Your task to perform on an android device: open app "Grab" Image 0: 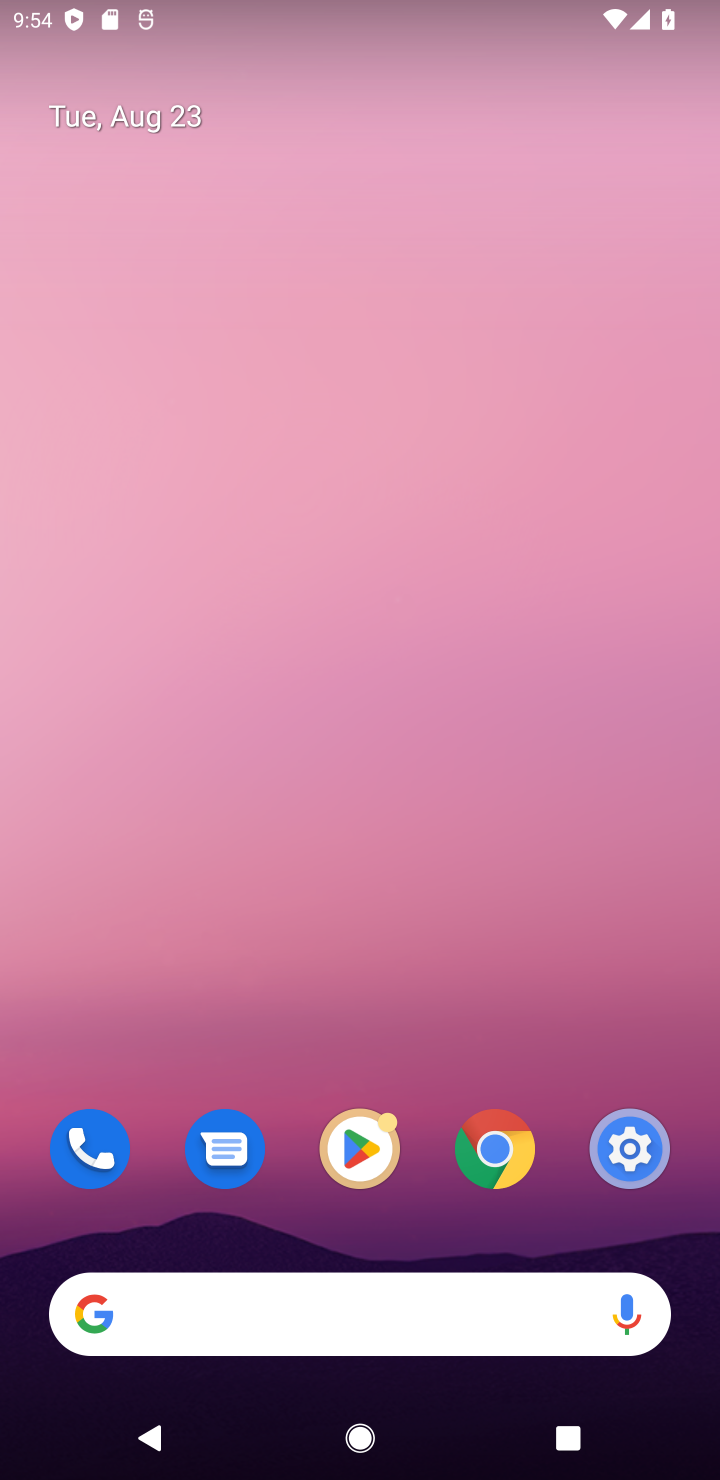
Step 0: click (386, 1144)
Your task to perform on an android device: open app "Grab" Image 1: 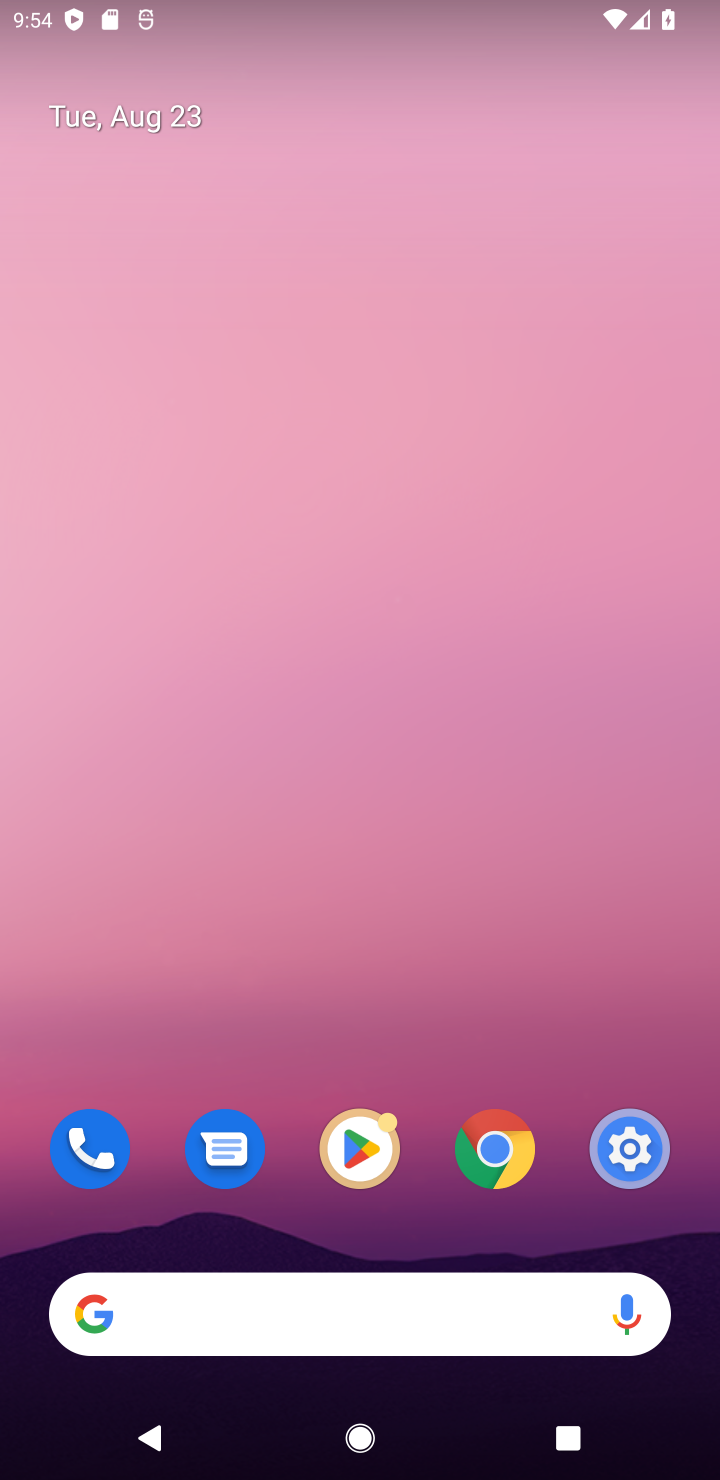
Step 1: click (364, 1144)
Your task to perform on an android device: open app "Grab" Image 2: 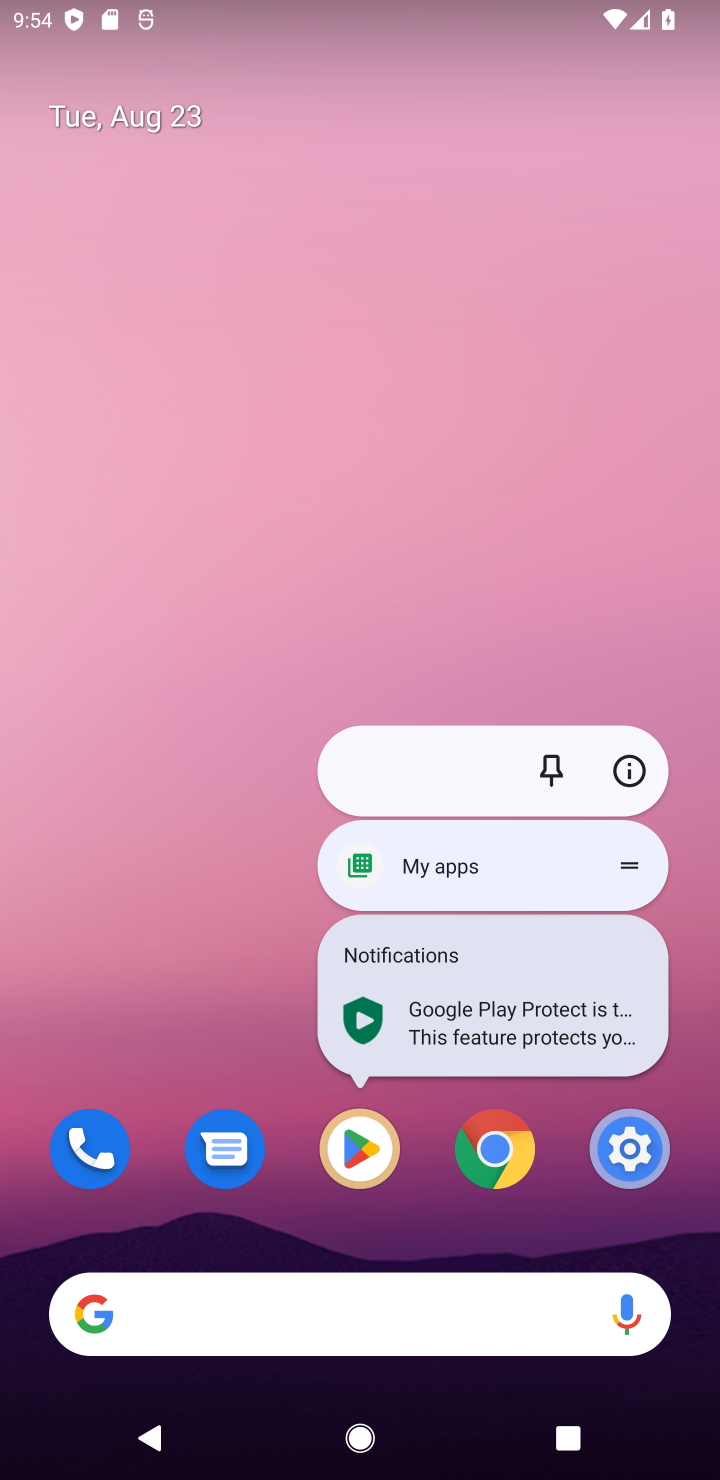
Step 2: click (364, 1144)
Your task to perform on an android device: open app "Grab" Image 3: 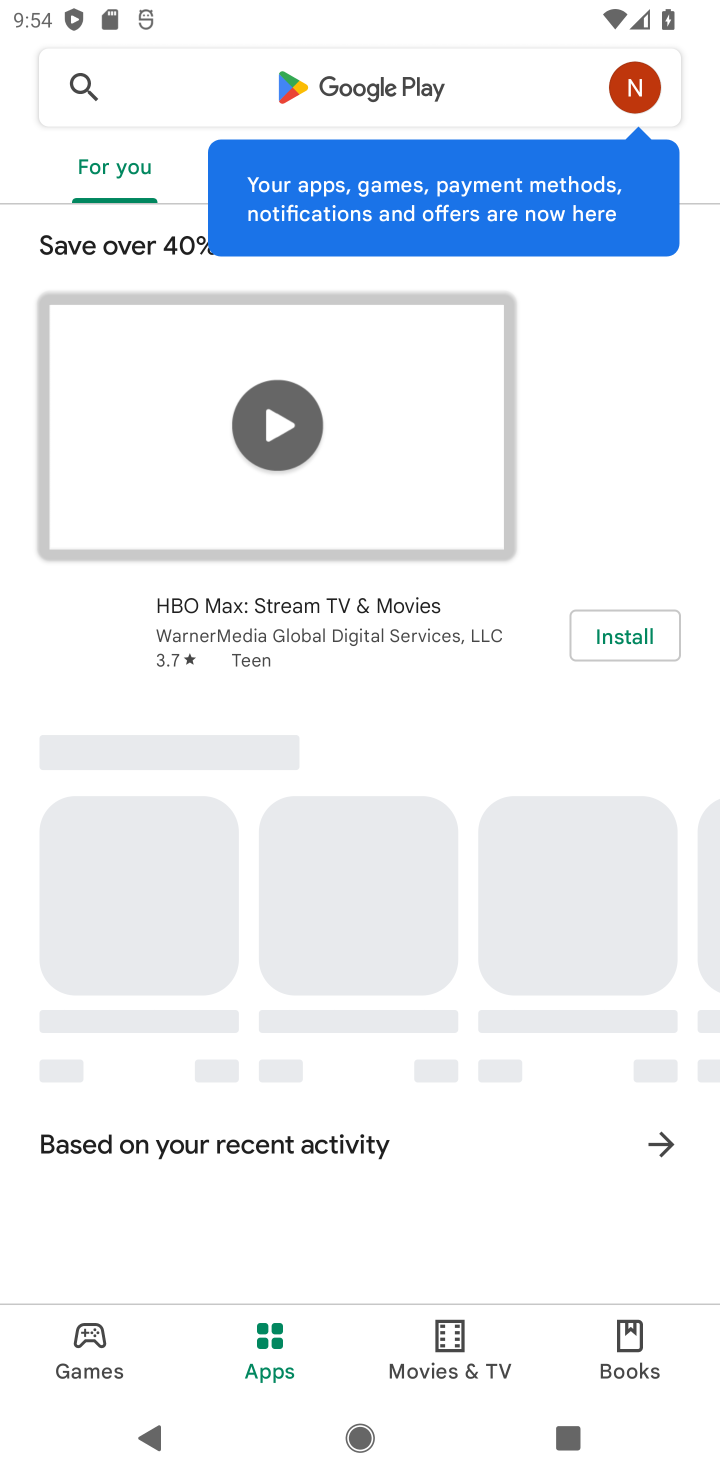
Step 3: click (404, 96)
Your task to perform on an android device: open app "Grab" Image 4: 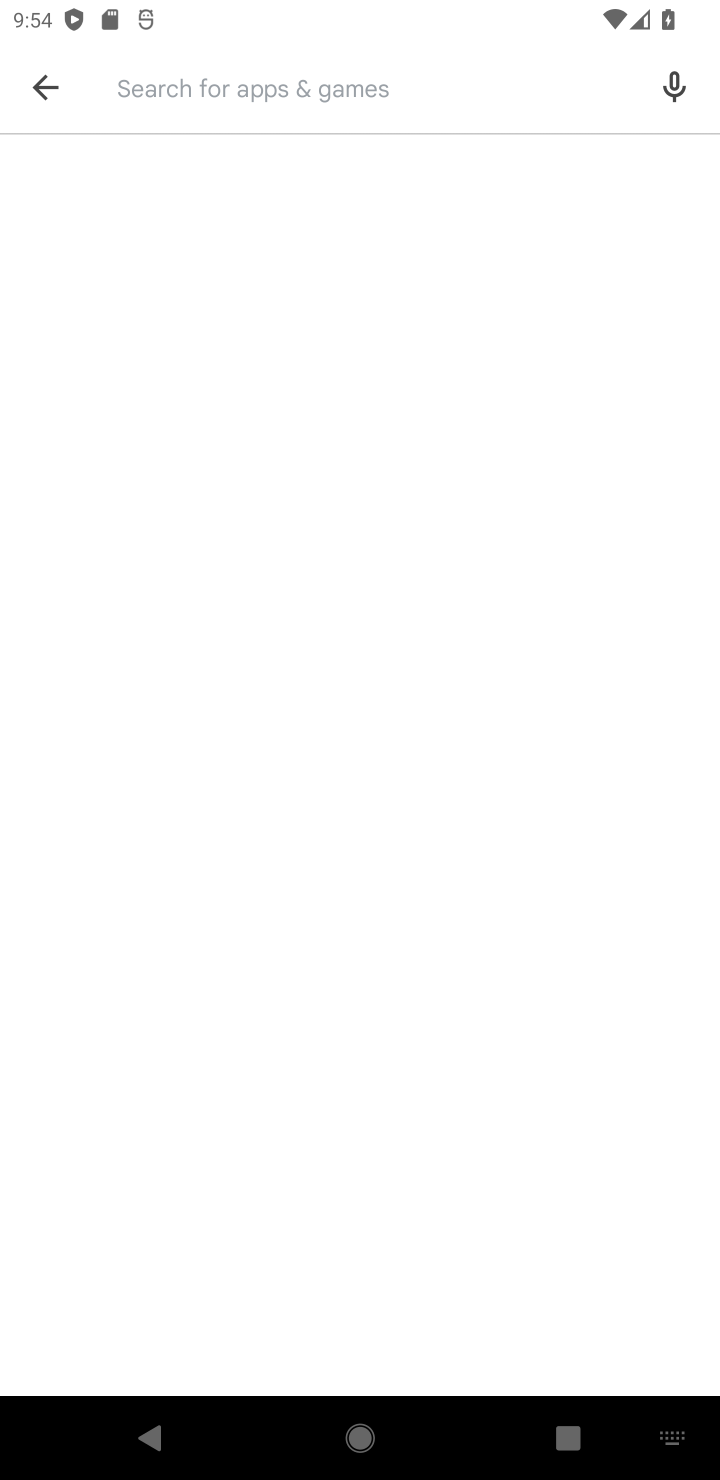
Step 4: type "grab"
Your task to perform on an android device: open app "Grab" Image 5: 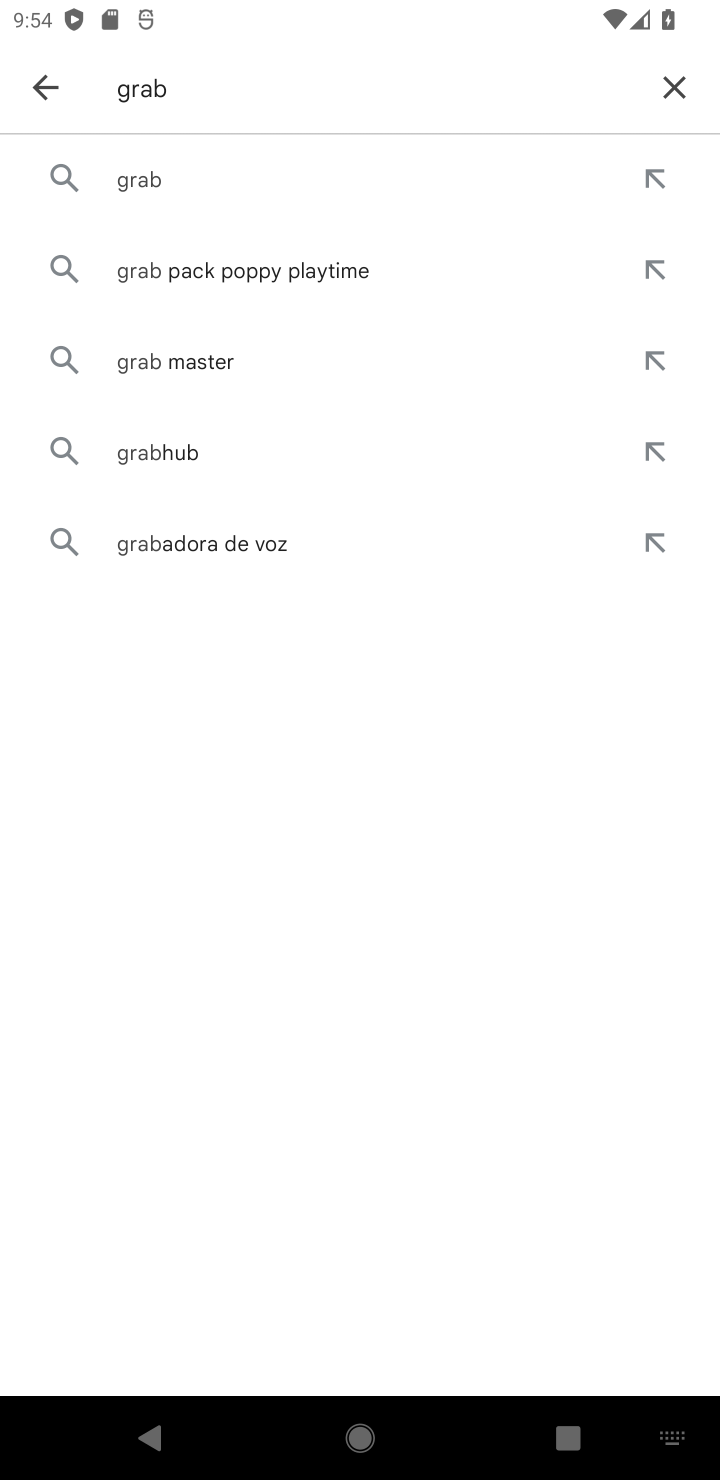
Step 5: click (303, 200)
Your task to perform on an android device: open app "Grab" Image 6: 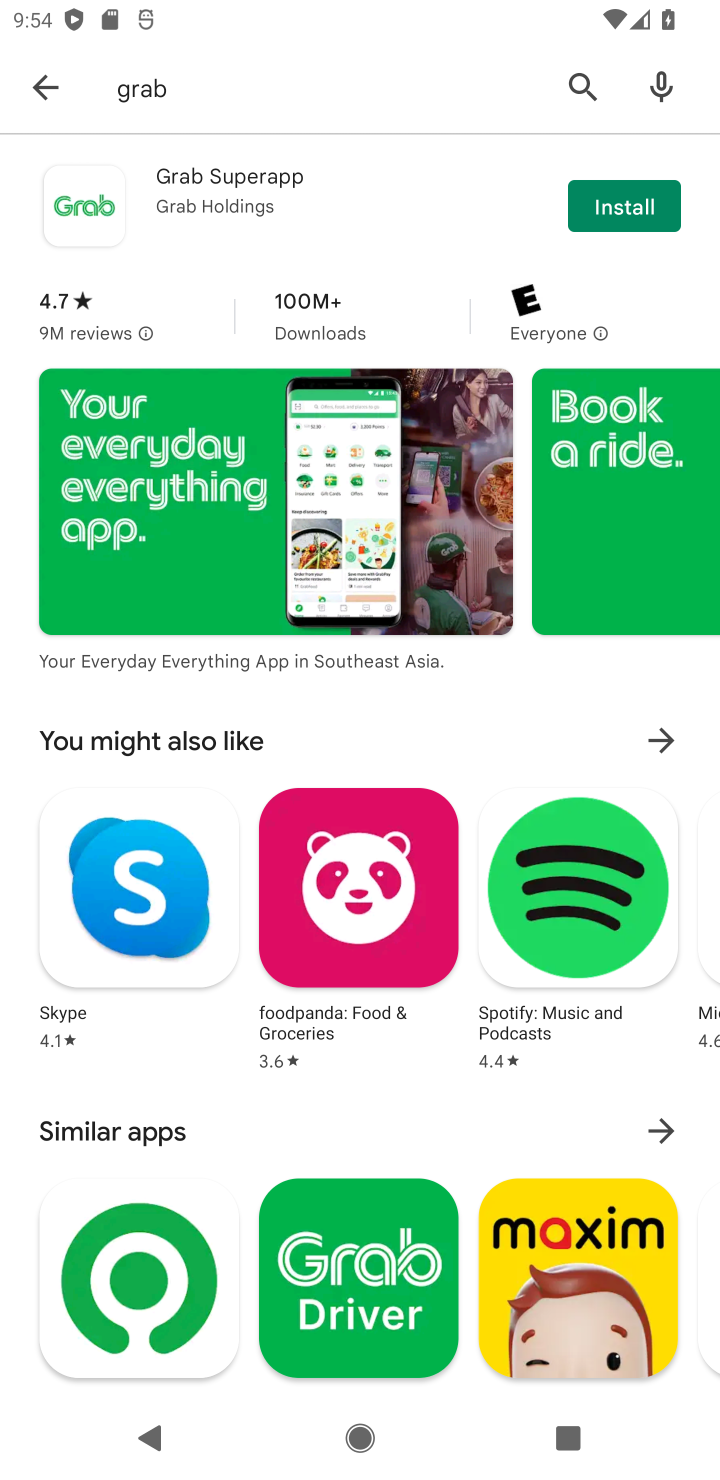
Step 6: click (573, 195)
Your task to perform on an android device: open app "Grab" Image 7: 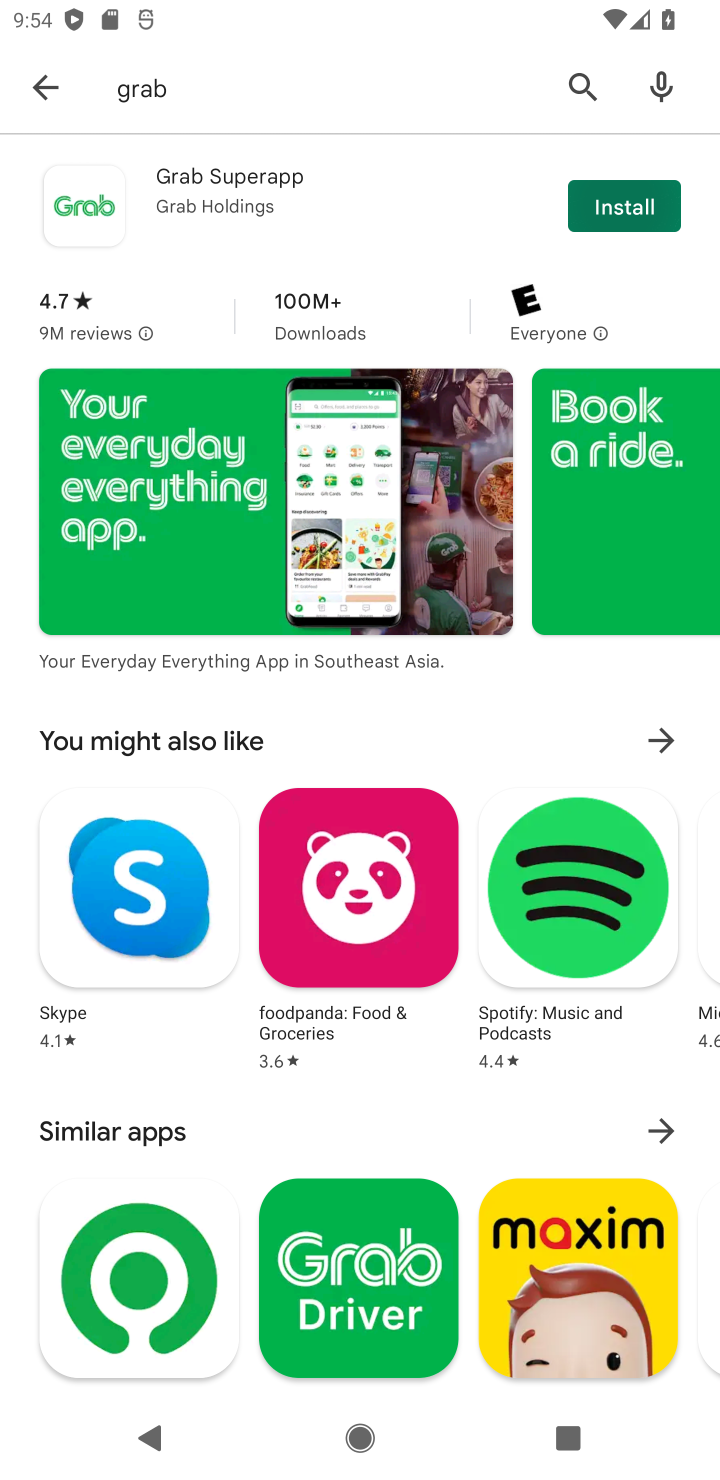
Step 7: task complete